Your task to perform on an android device: What's on my calendar today? Image 0: 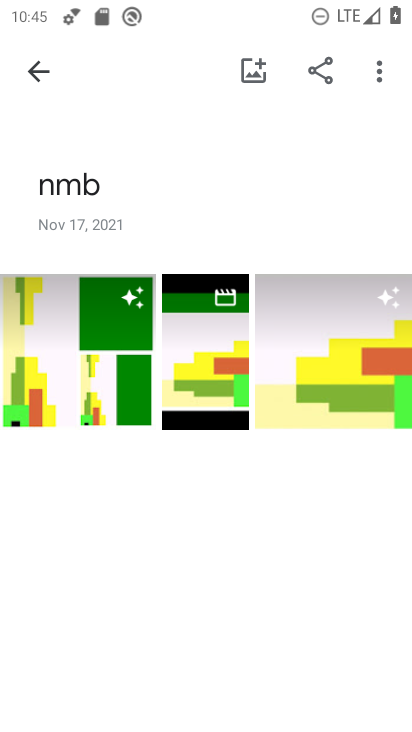
Step 0: press home button
Your task to perform on an android device: What's on my calendar today? Image 1: 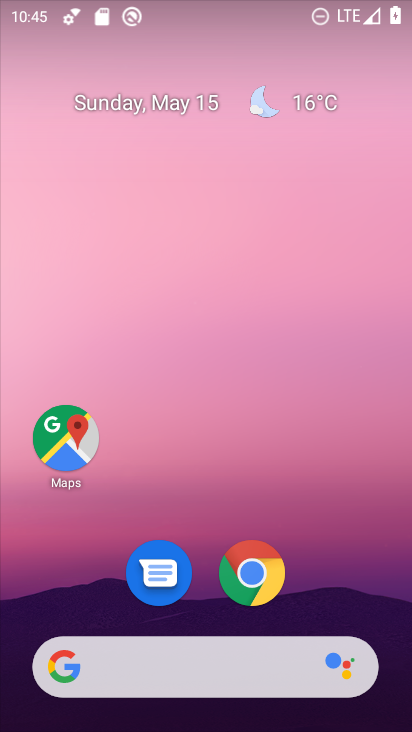
Step 1: drag from (340, 561) to (349, 0)
Your task to perform on an android device: What's on my calendar today? Image 2: 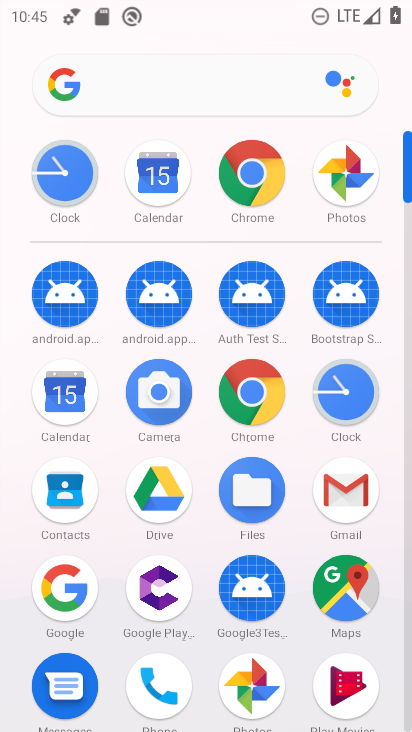
Step 2: click (59, 378)
Your task to perform on an android device: What's on my calendar today? Image 3: 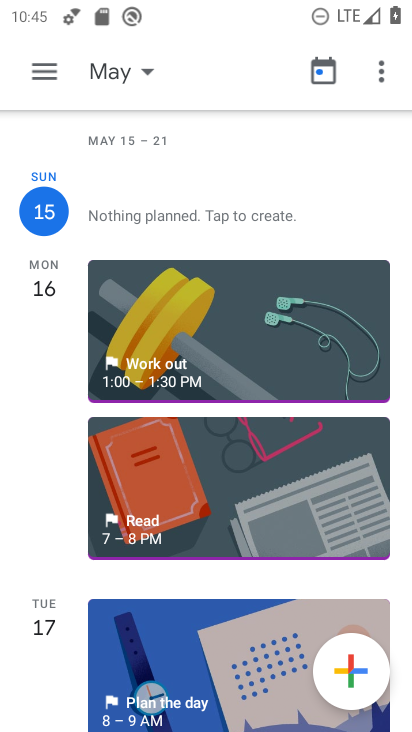
Step 3: click (157, 76)
Your task to perform on an android device: What's on my calendar today? Image 4: 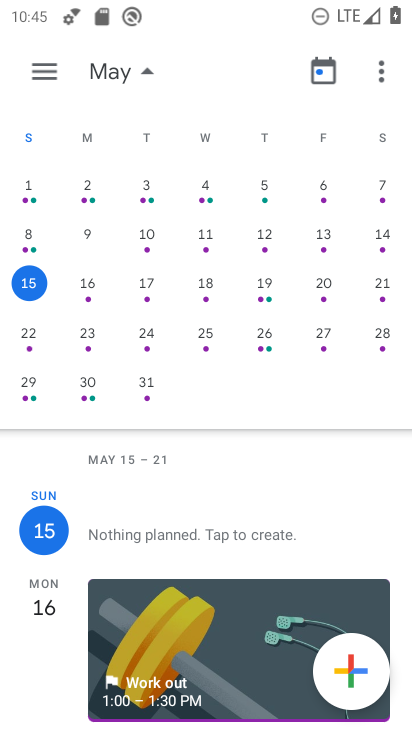
Step 4: click (157, 79)
Your task to perform on an android device: What's on my calendar today? Image 5: 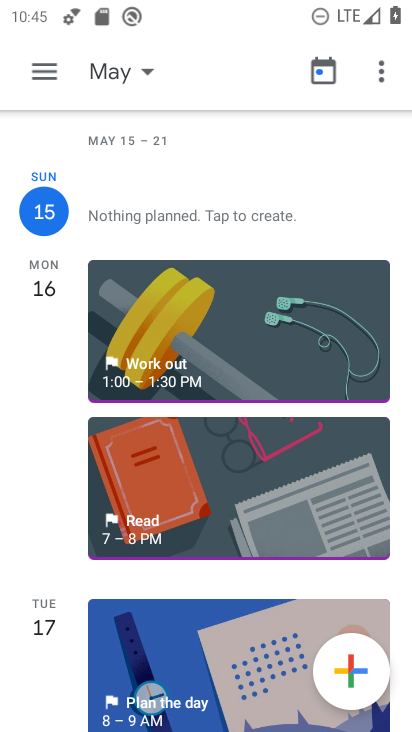
Step 5: click (147, 66)
Your task to perform on an android device: What's on my calendar today? Image 6: 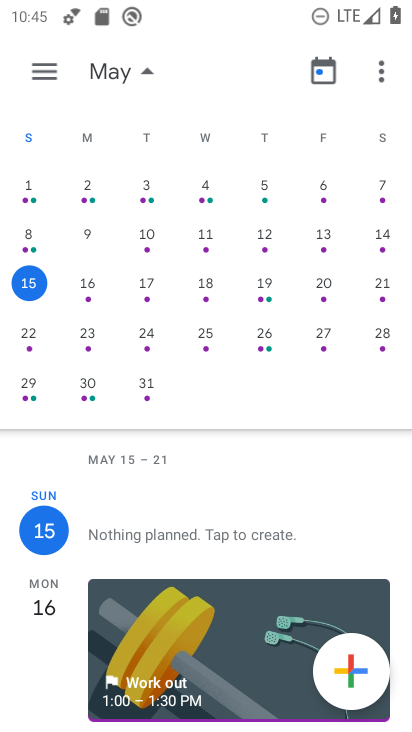
Step 6: click (100, 294)
Your task to perform on an android device: What's on my calendar today? Image 7: 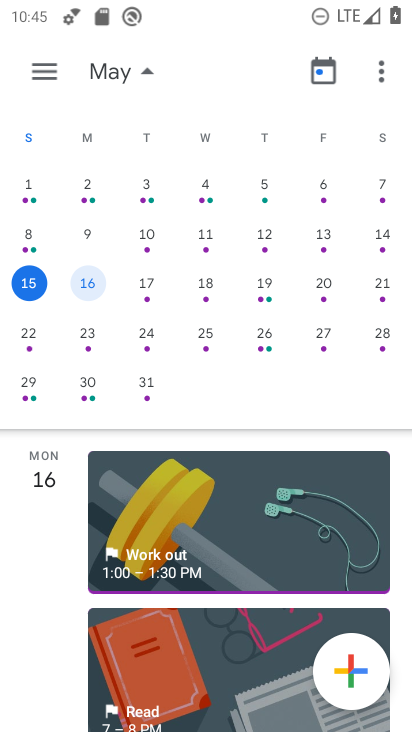
Step 7: click (120, 66)
Your task to perform on an android device: What's on my calendar today? Image 8: 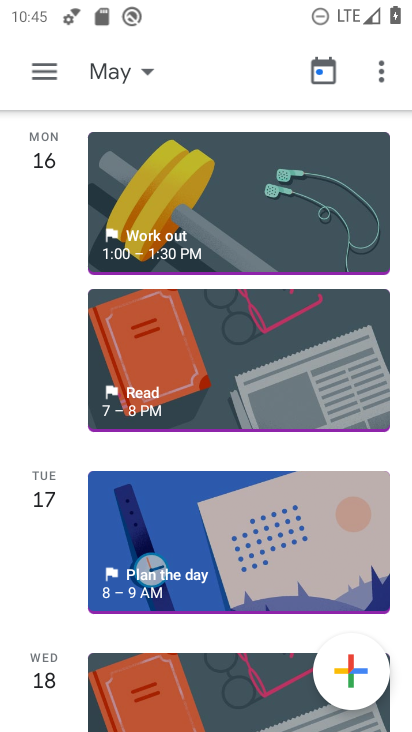
Step 8: task complete